Your task to perform on an android device: Open wifi settings Image 0: 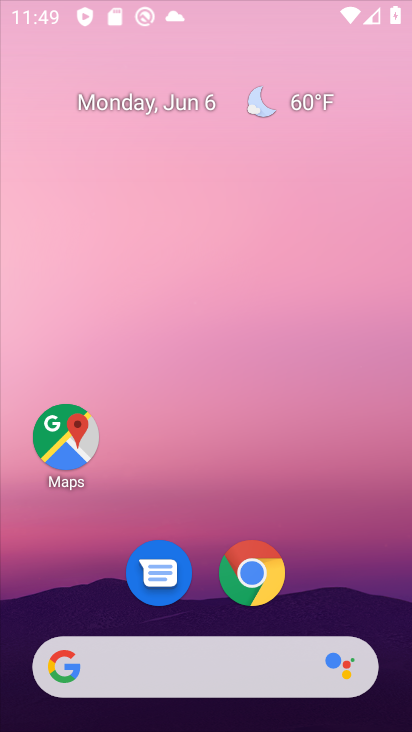
Step 0: press home button
Your task to perform on an android device: Open wifi settings Image 1: 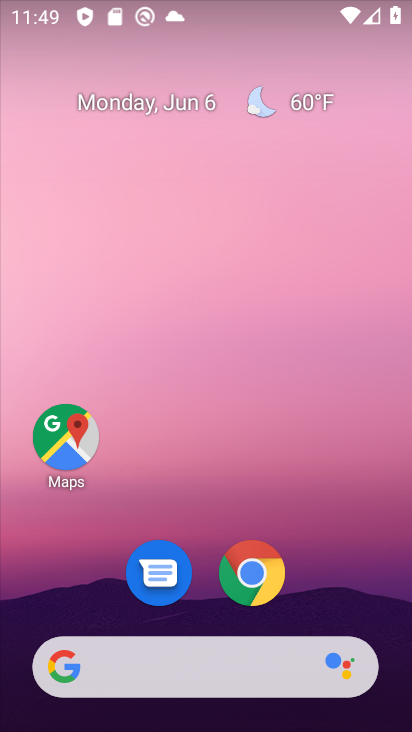
Step 1: drag from (365, 11) to (320, 484)
Your task to perform on an android device: Open wifi settings Image 2: 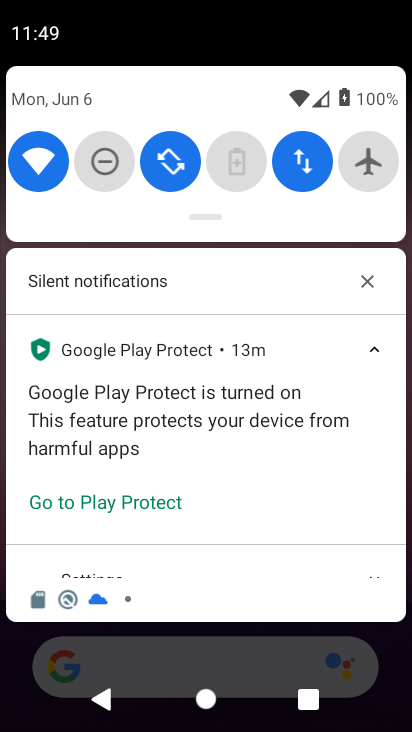
Step 2: click (45, 159)
Your task to perform on an android device: Open wifi settings Image 3: 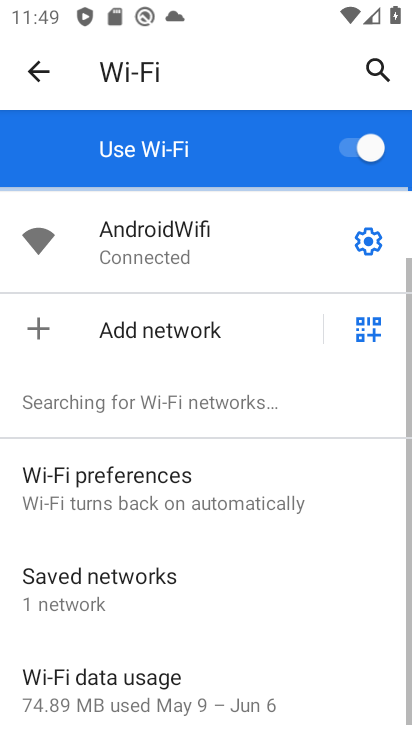
Step 3: task complete